Your task to perform on an android device: Turn off the flashlight Image 0: 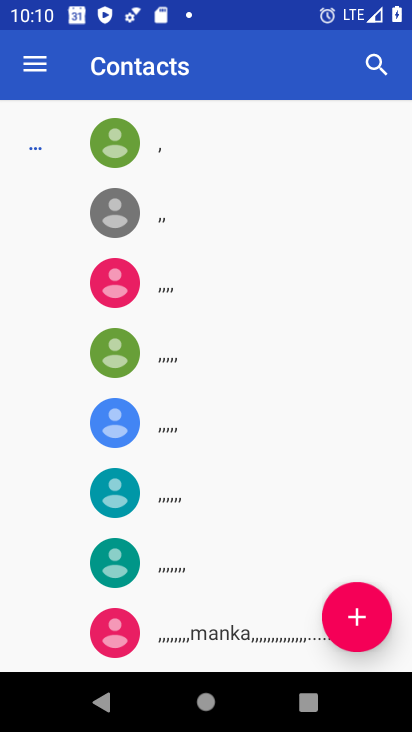
Step 0: press home button
Your task to perform on an android device: Turn off the flashlight Image 1: 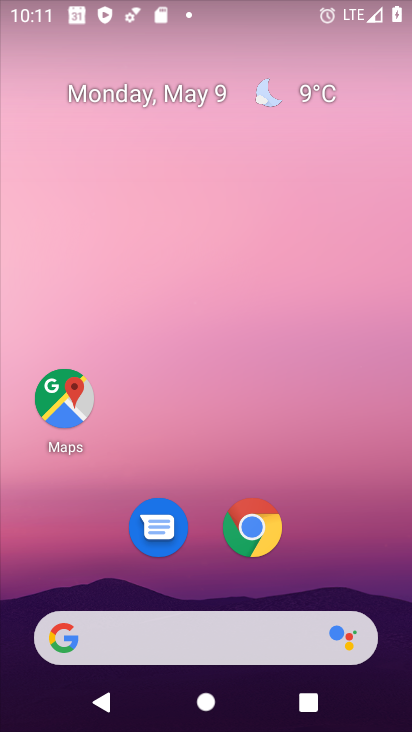
Step 1: drag from (234, 12) to (213, 626)
Your task to perform on an android device: Turn off the flashlight Image 2: 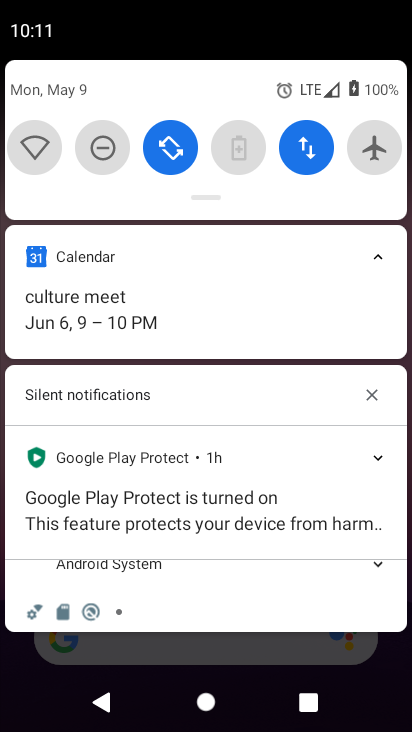
Step 2: drag from (203, 196) to (211, 550)
Your task to perform on an android device: Turn off the flashlight Image 3: 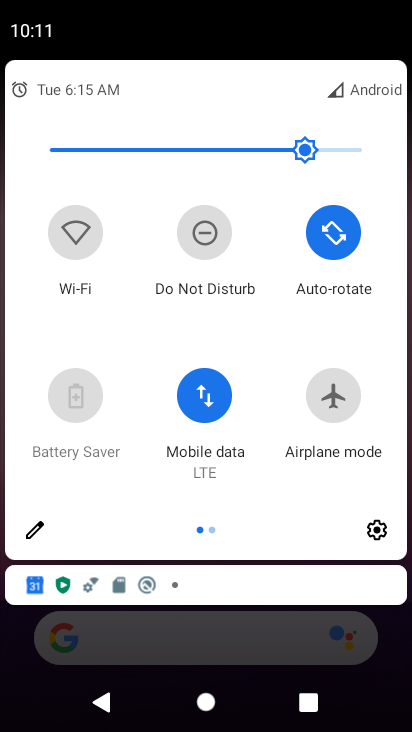
Step 3: click (29, 527)
Your task to perform on an android device: Turn off the flashlight Image 4: 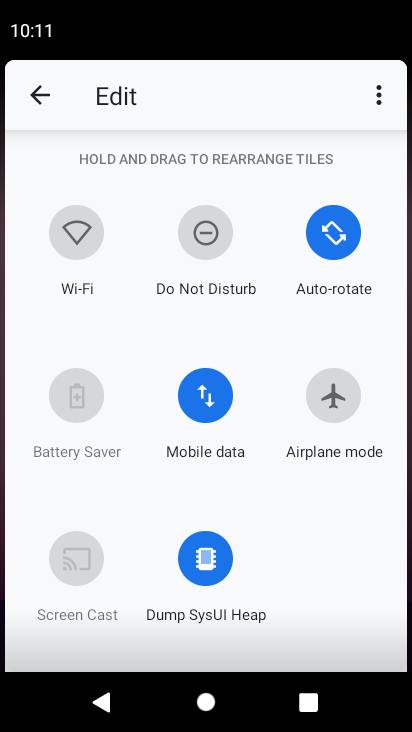
Step 4: task complete